Your task to perform on an android device: Go to sound settings Image 0: 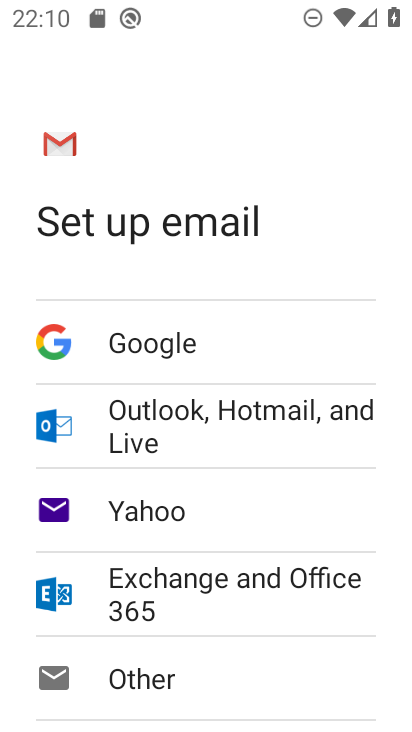
Step 0: press home button
Your task to perform on an android device: Go to sound settings Image 1: 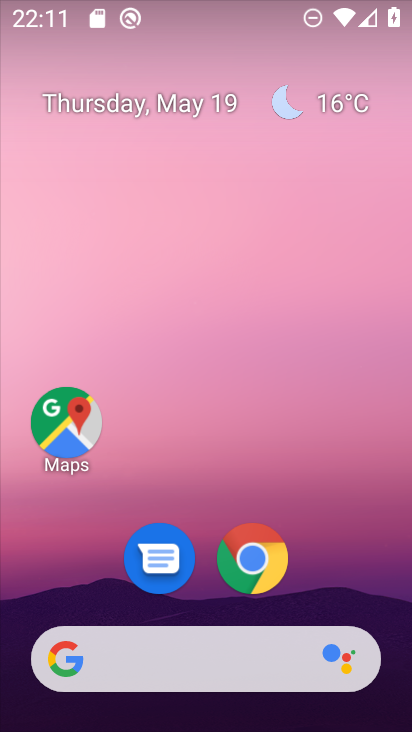
Step 1: drag from (215, 725) to (220, 173)
Your task to perform on an android device: Go to sound settings Image 2: 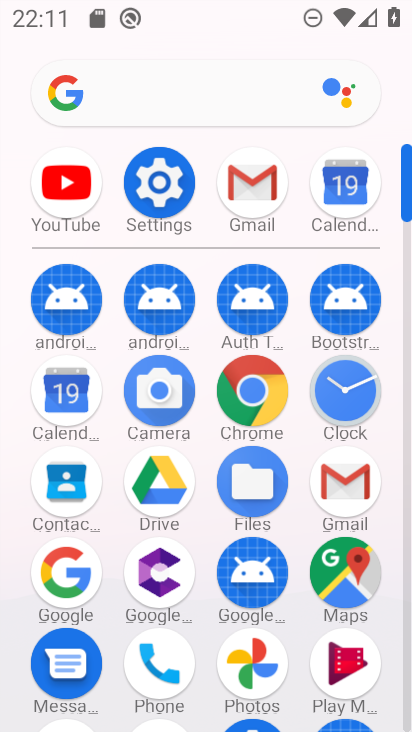
Step 2: click (154, 183)
Your task to perform on an android device: Go to sound settings Image 3: 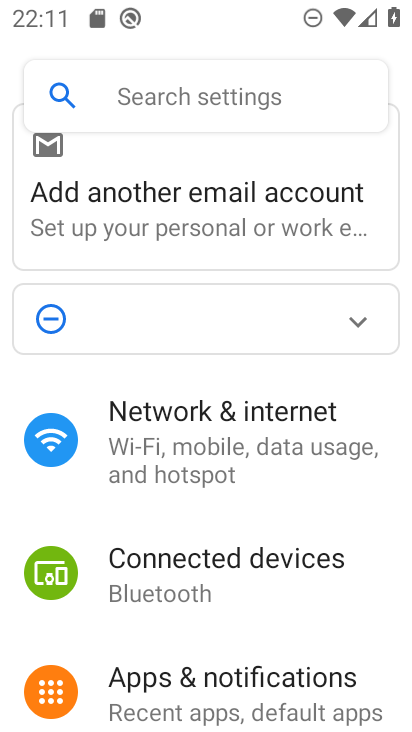
Step 3: drag from (202, 652) to (193, 220)
Your task to perform on an android device: Go to sound settings Image 4: 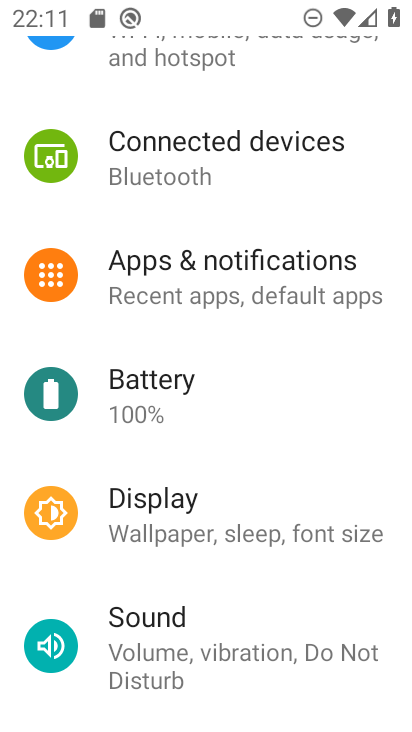
Step 4: click (147, 646)
Your task to perform on an android device: Go to sound settings Image 5: 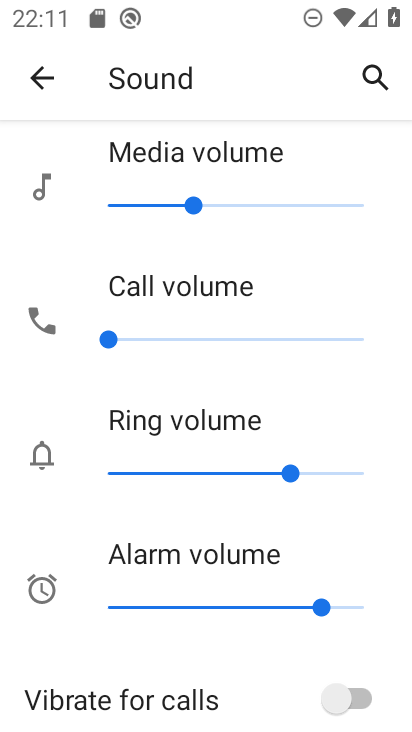
Step 5: task complete